Your task to perform on an android device: Open display settings Image 0: 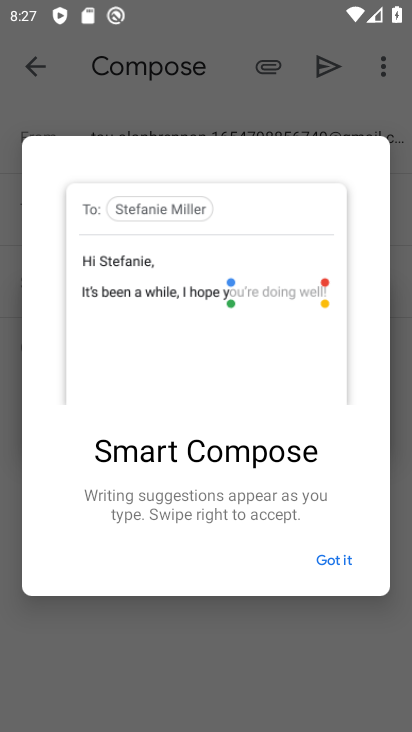
Step 0: press home button
Your task to perform on an android device: Open display settings Image 1: 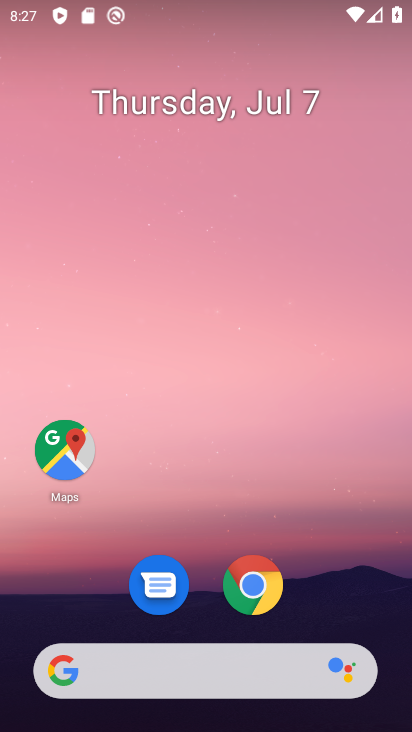
Step 1: drag from (220, 531) to (249, 36)
Your task to perform on an android device: Open display settings Image 2: 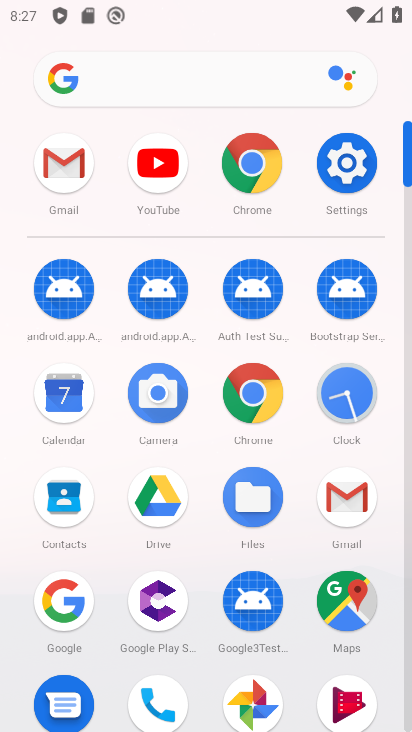
Step 2: click (343, 174)
Your task to perform on an android device: Open display settings Image 3: 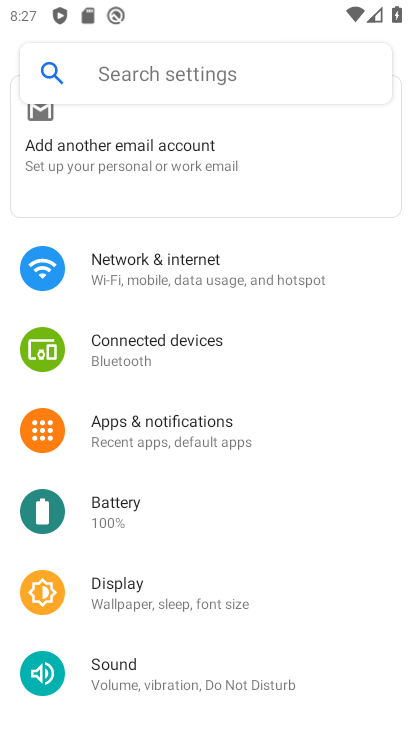
Step 3: drag from (180, 581) to (184, 439)
Your task to perform on an android device: Open display settings Image 4: 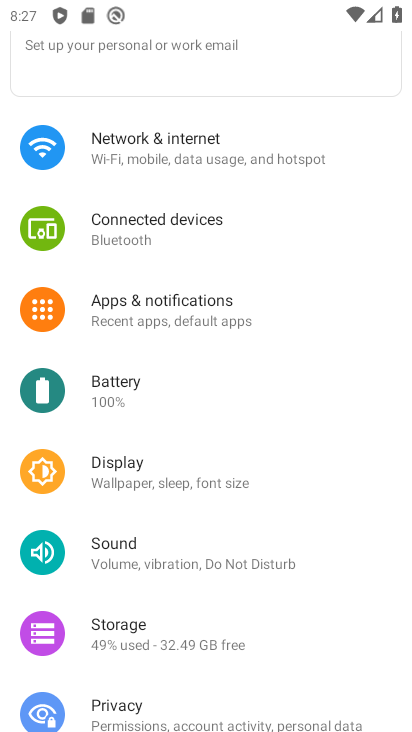
Step 4: click (182, 465)
Your task to perform on an android device: Open display settings Image 5: 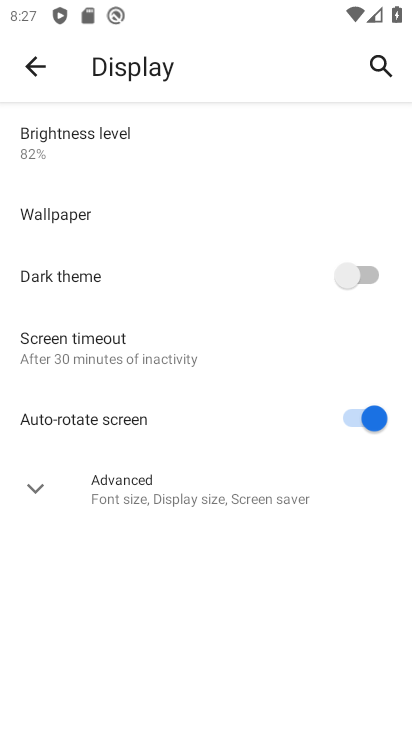
Step 5: task complete